Your task to perform on an android device: What's the weather going to be this weekend? Image 0: 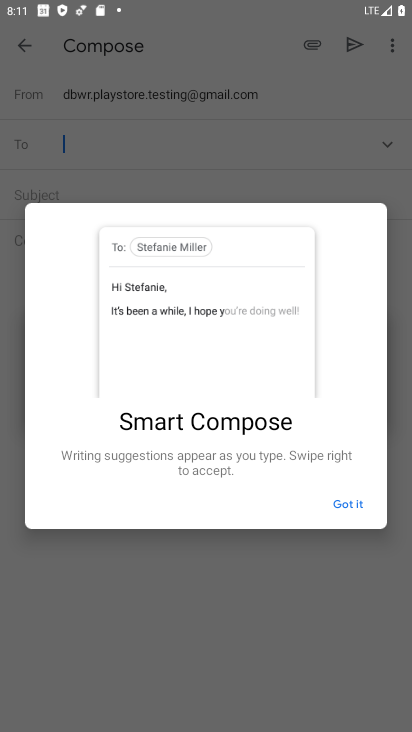
Step 0: press home button
Your task to perform on an android device: What's the weather going to be this weekend? Image 1: 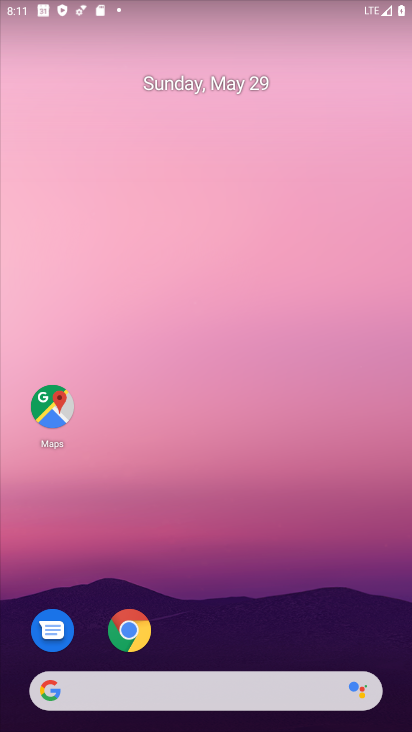
Step 1: click (192, 672)
Your task to perform on an android device: What's the weather going to be this weekend? Image 2: 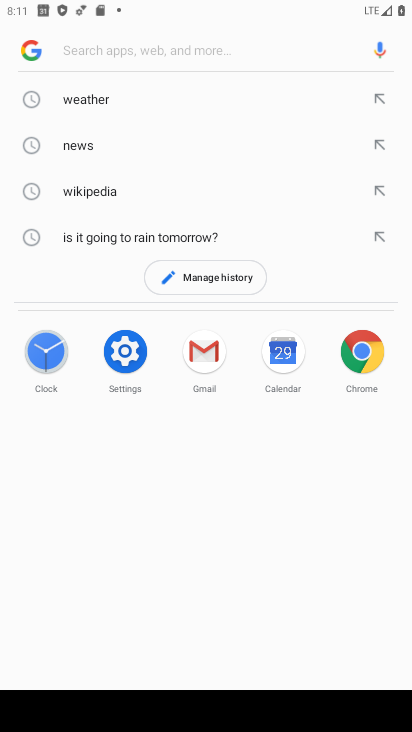
Step 2: click (83, 101)
Your task to perform on an android device: What's the weather going to be this weekend? Image 3: 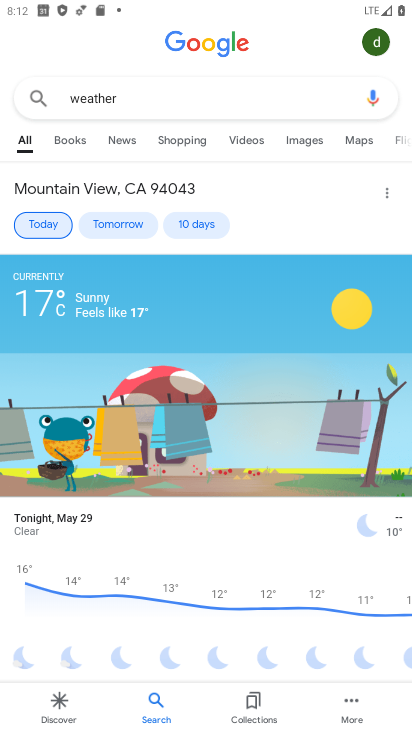
Step 3: click (172, 228)
Your task to perform on an android device: What's the weather going to be this weekend? Image 4: 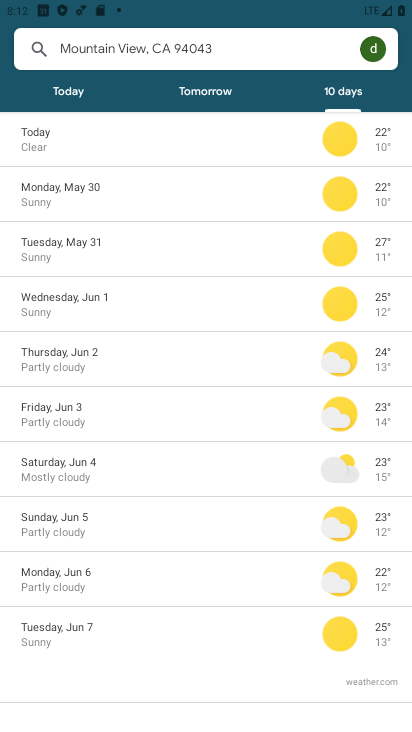
Step 4: task complete